Your task to perform on an android device: Open Google Maps Image 0: 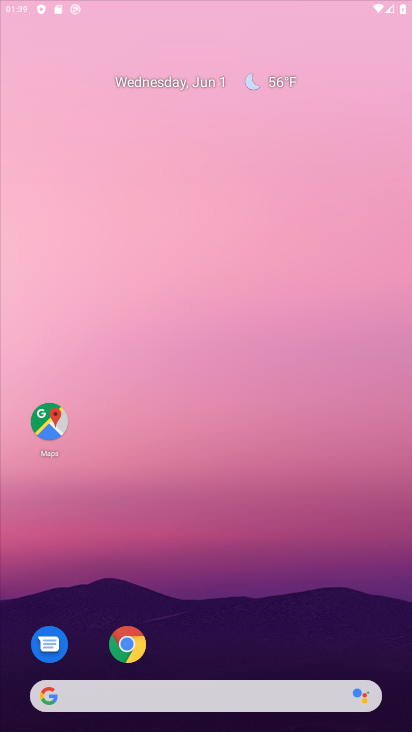
Step 0: click (236, 320)
Your task to perform on an android device: Open Google Maps Image 1: 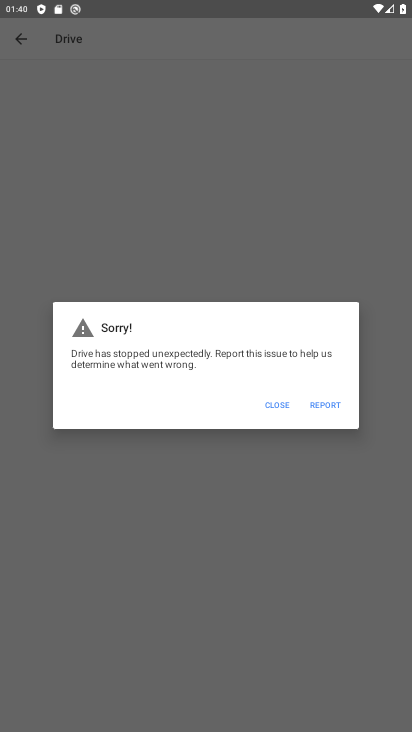
Step 1: press home button
Your task to perform on an android device: Open Google Maps Image 2: 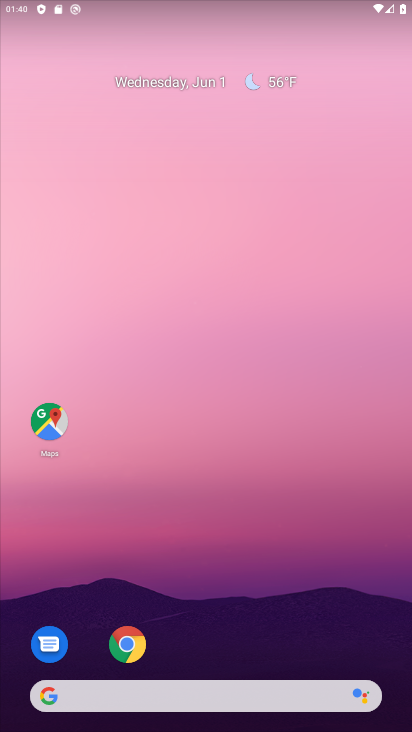
Step 2: click (58, 421)
Your task to perform on an android device: Open Google Maps Image 3: 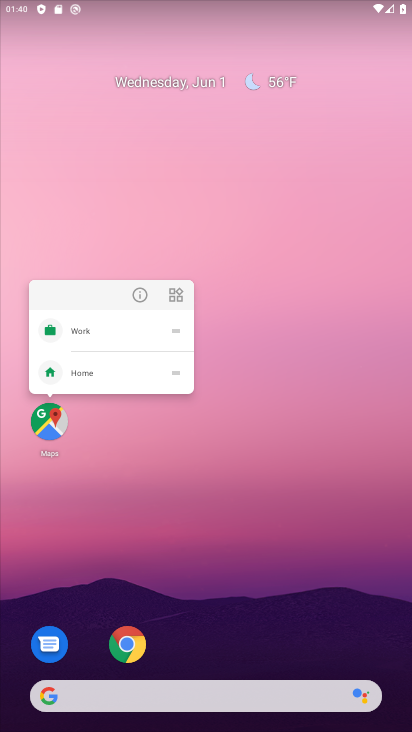
Step 3: click (58, 421)
Your task to perform on an android device: Open Google Maps Image 4: 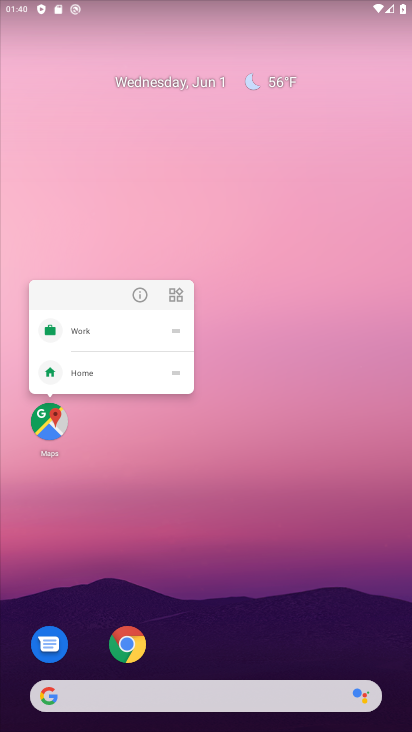
Step 4: click (44, 425)
Your task to perform on an android device: Open Google Maps Image 5: 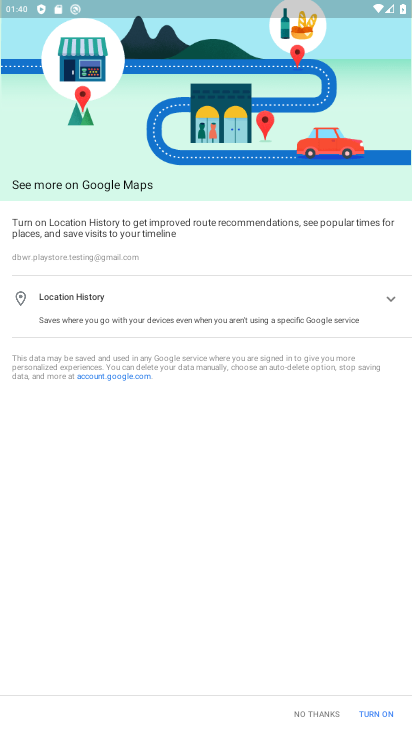
Step 5: click (366, 710)
Your task to perform on an android device: Open Google Maps Image 6: 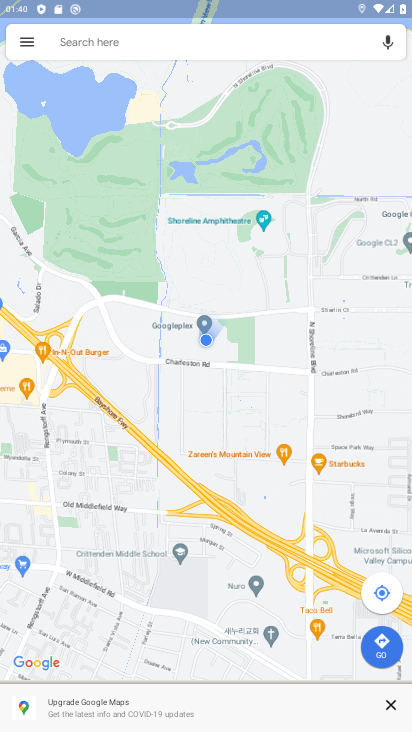
Step 6: task complete